Your task to perform on an android device: turn on wifi Image 0: 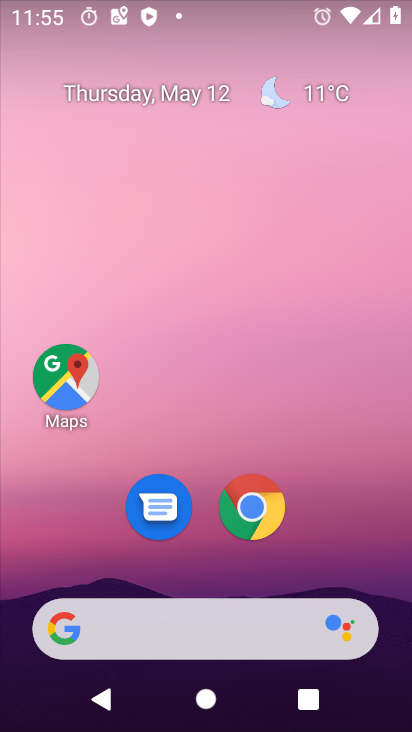
Step 0: click (233, 549)
Your task to perform on an android device: turn on wifi Image 1: 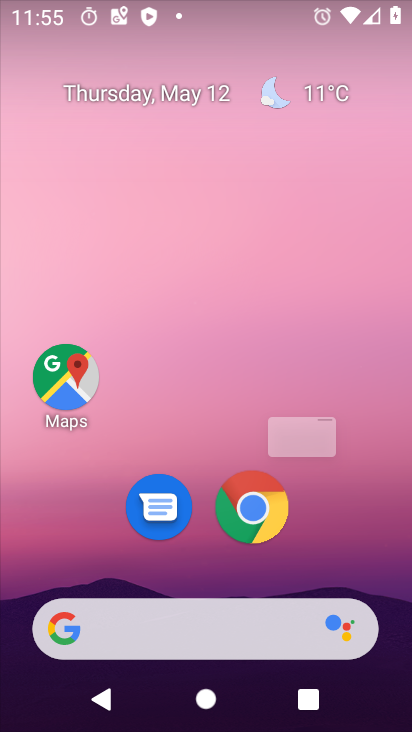
Step 1: drag from (236, 535) to (352, 2)
Your task to perform on an android device: turn on wifi Image 2: 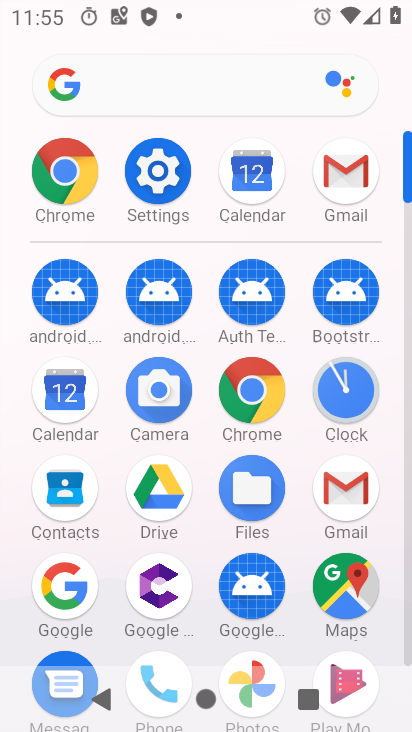
Step 2: click (165, 194)
Your task to perform on an android device: turn on wifi Image 3: 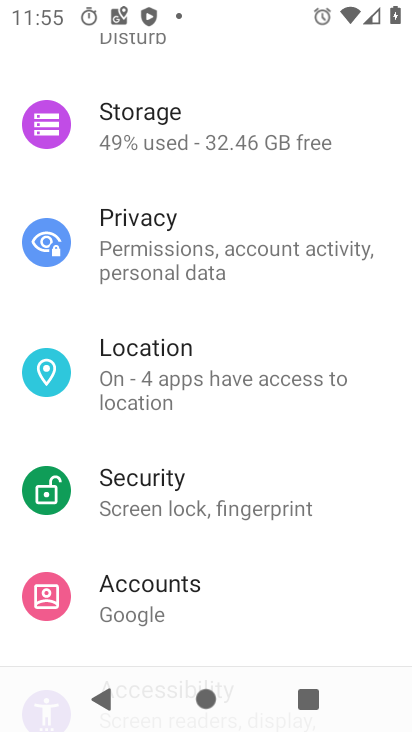
Step 3: drag from (185, 120) to (186, 690)
Your task to perform on an android device: turn on wifi Image 4: 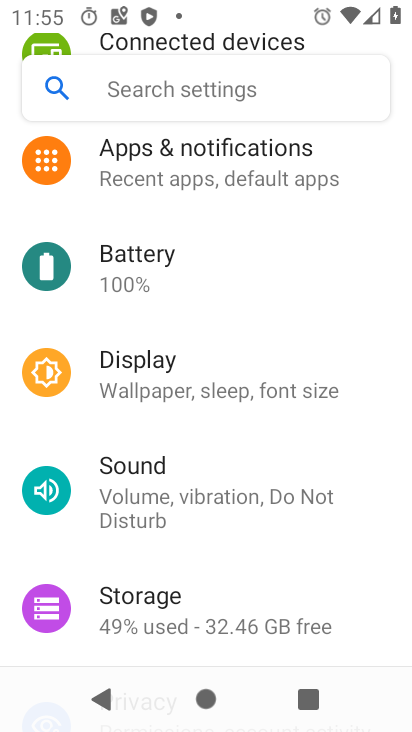
Step 4: drag from (169, 197) to (161, 718)
Your task to perform on an android device: turn on wifi Image 5: 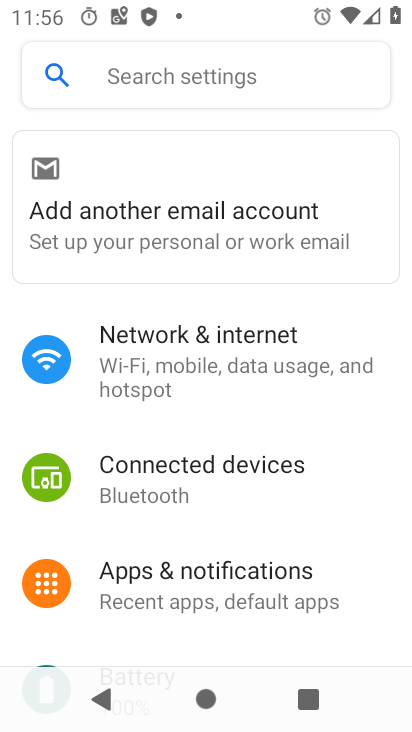
Step 5: click (161, 379)
Your task to perform on an android device: turn on wifi Image 6: 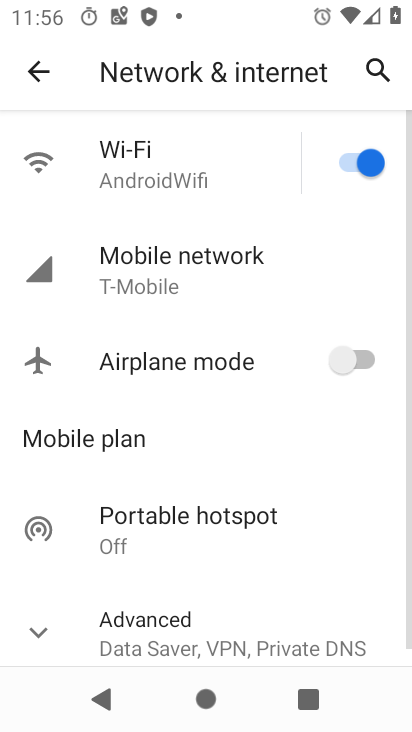
Step 6: task complete